Your task to perform on an android device: turn off improve location accuracy Image 0: 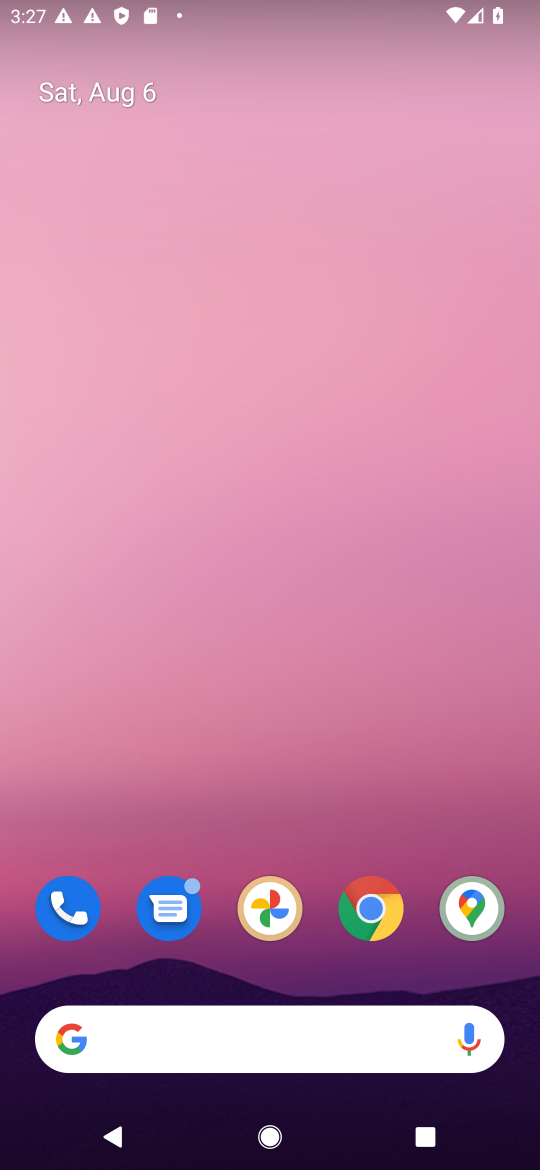
Step 0: drag from (275, 914) to (320, 247)
Your task to perform on an android device: turn off improve location accuracy Image 1: 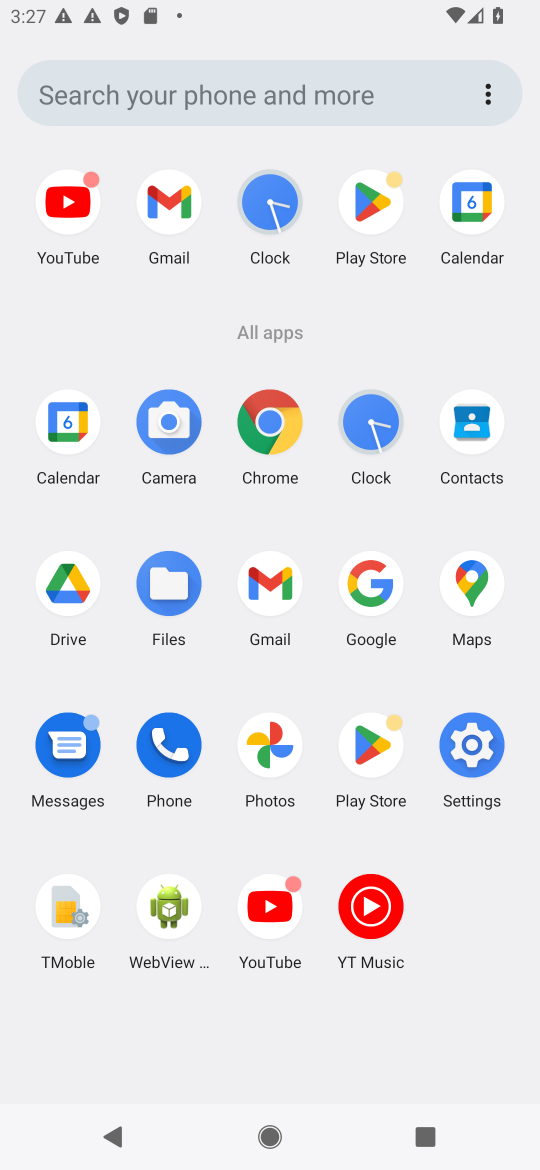
Step 1: click (482, 774)
Your task to perform on an android device: turn off improve location accuracy Image 2: 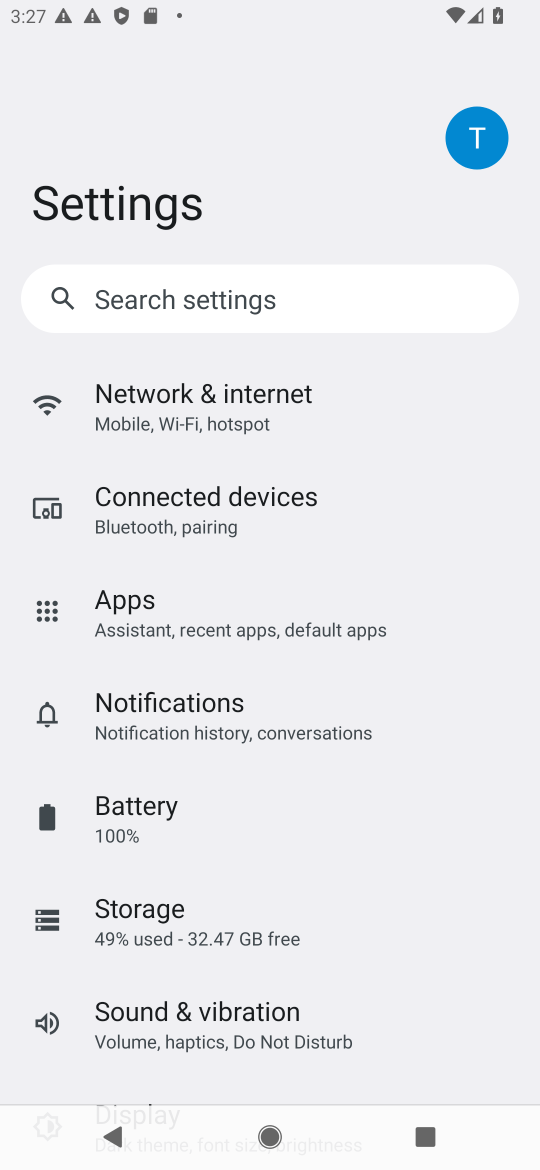
Step 2: drag from (193, 952) to (216, 784)
Your task to perform on an android device: turn off improve location accuracy Image 3: 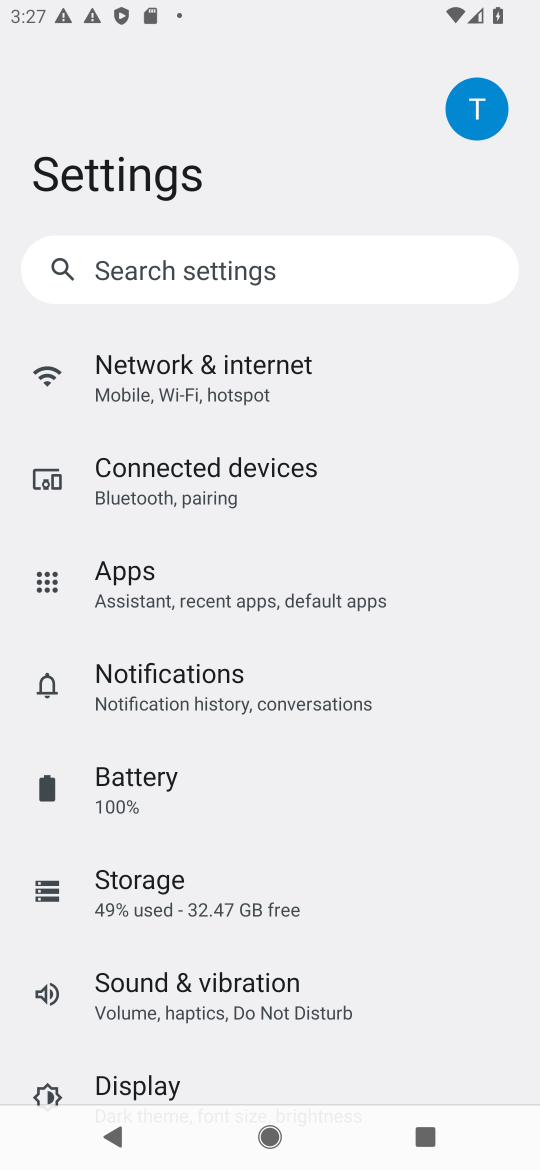
Step 3: drag from (249, 878) to (263, 574)
Your task to perform on an android device: turn off improve location accuracy Image 4: 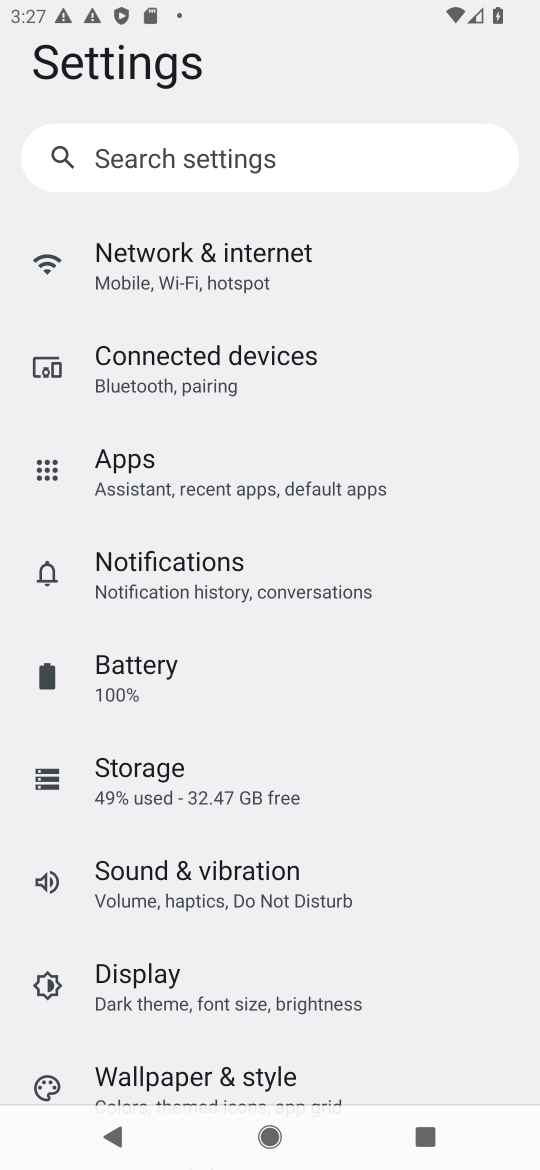
Step 4: drag from (184, 953) to (224, 478)
Your task to perform on an android device: turn off improve location accuracy Image 5: 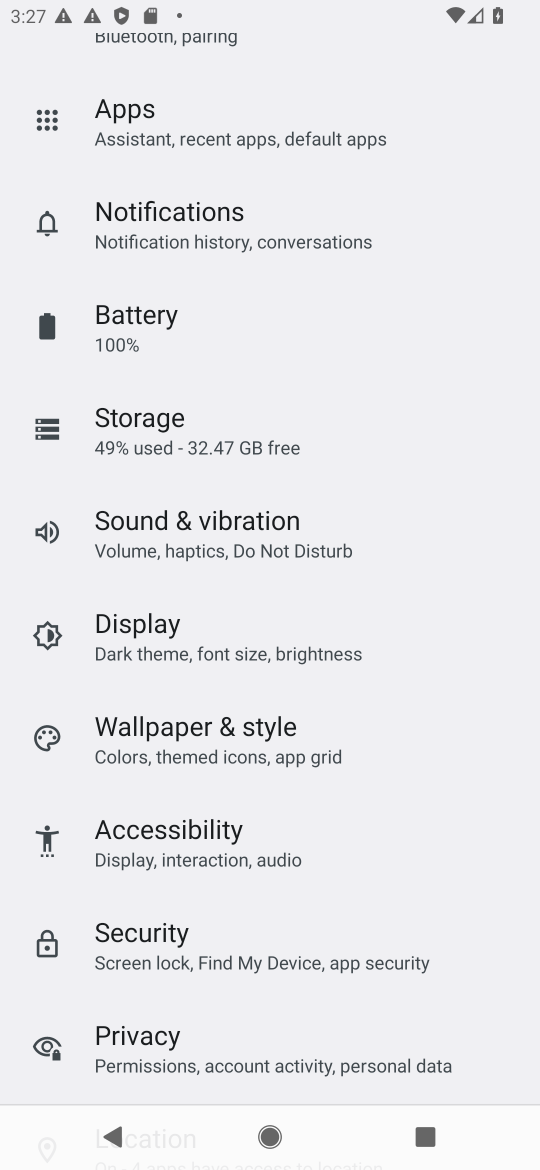
Step 5: drag from (198, 1052) to (209, 726)
Your task to perform on an android device: turn off improve location accuracy Image 6: 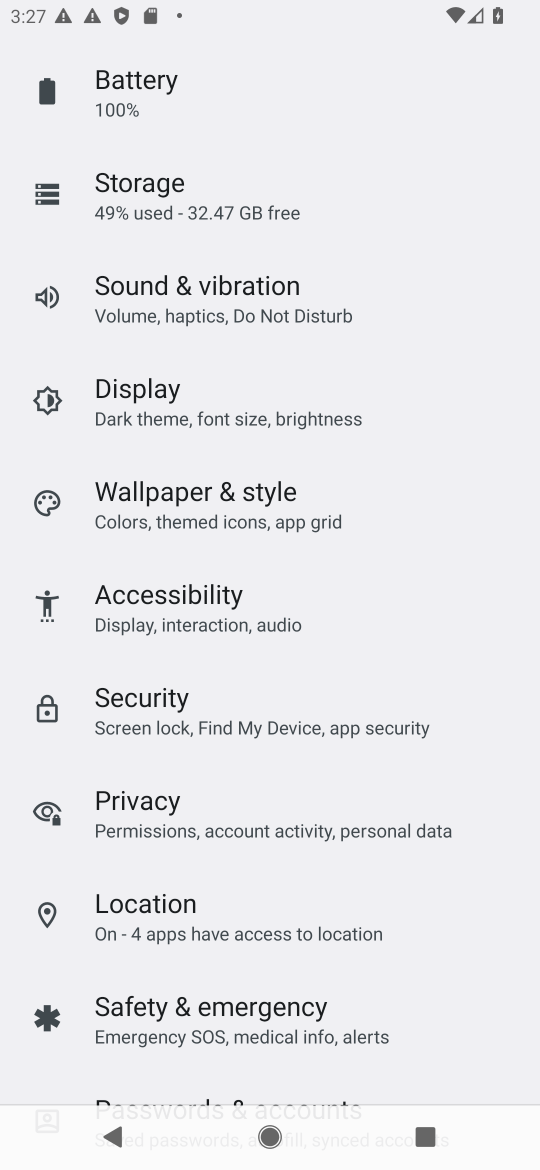
Step 6: click (164, 913)
Your task to perform on an android device: turn off improve location accuracy Image 7: 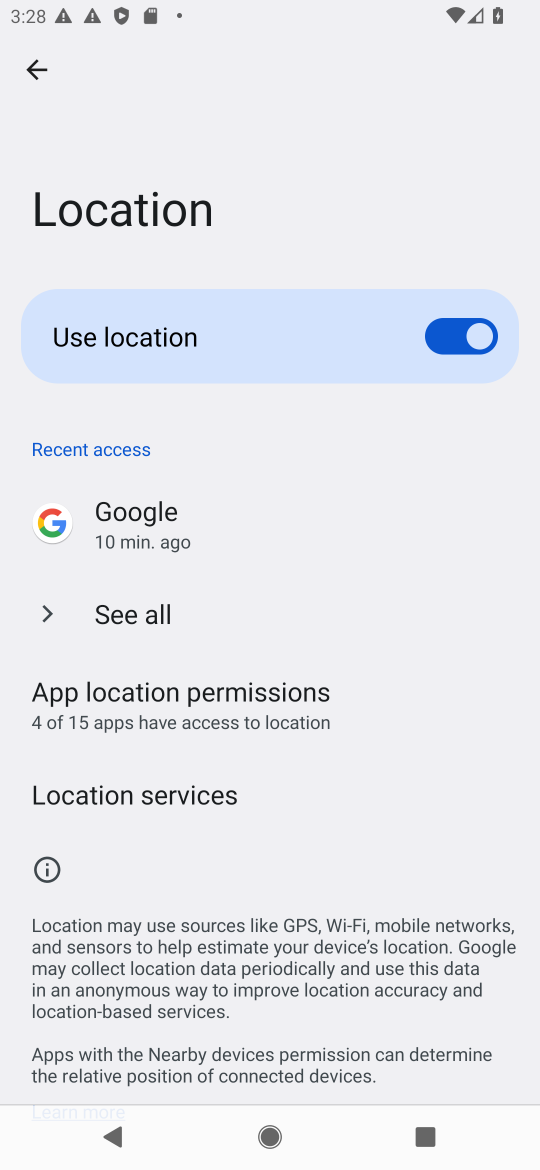
Step 7: click (161, 804)
Your task to perform on an android device: turn off improve location accuracy Image 8: 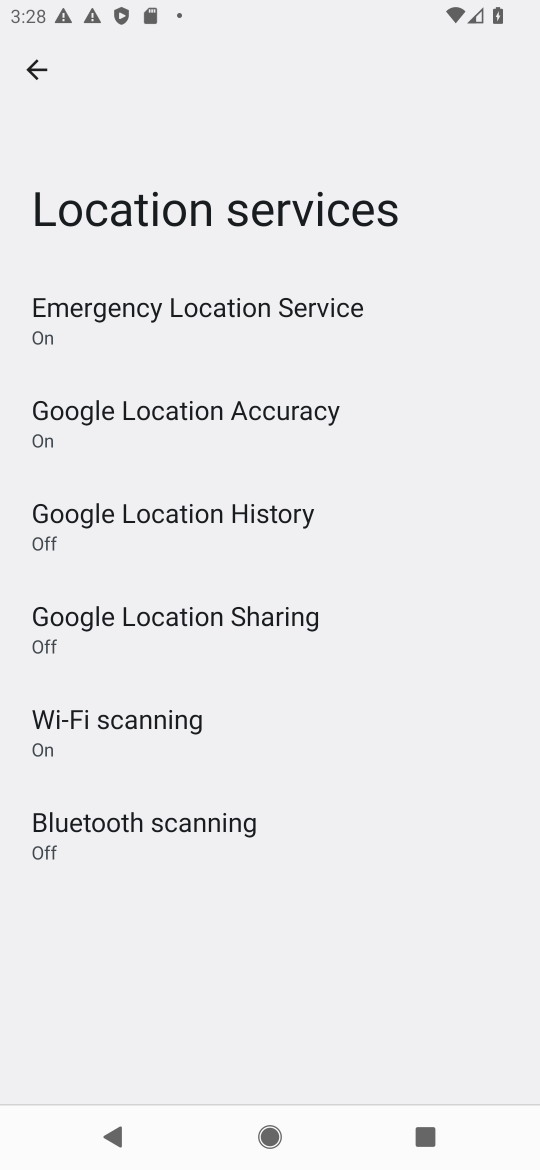
Step 8: click (280, 409)
Your task to perform on an android device: turn off improve location accuracy Image 9: 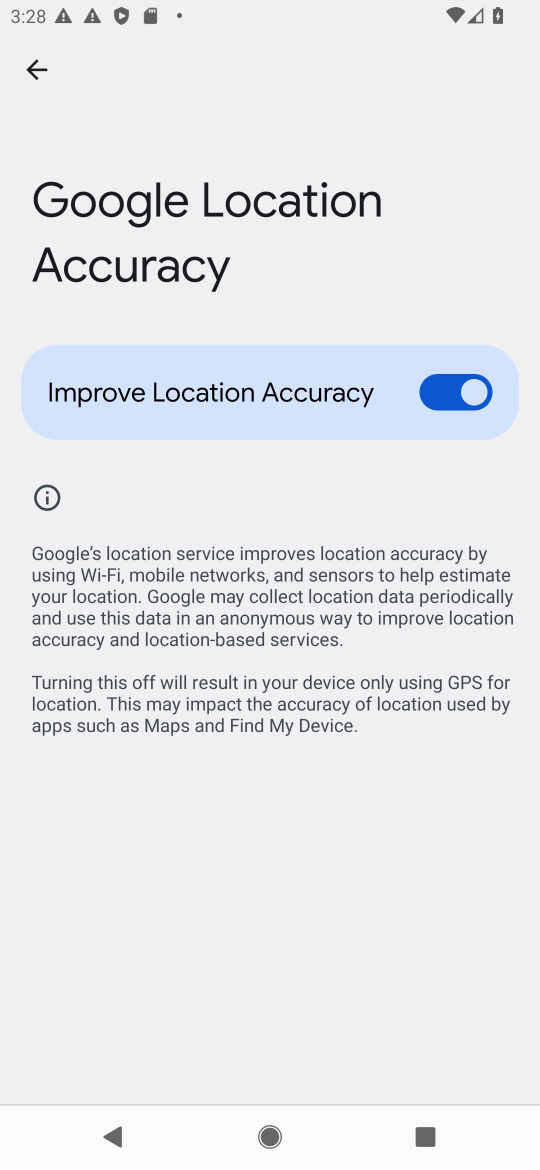
Step 9: click (414, 402)
Your task to perform on an android device: turn off improve location accuracy Image 10: 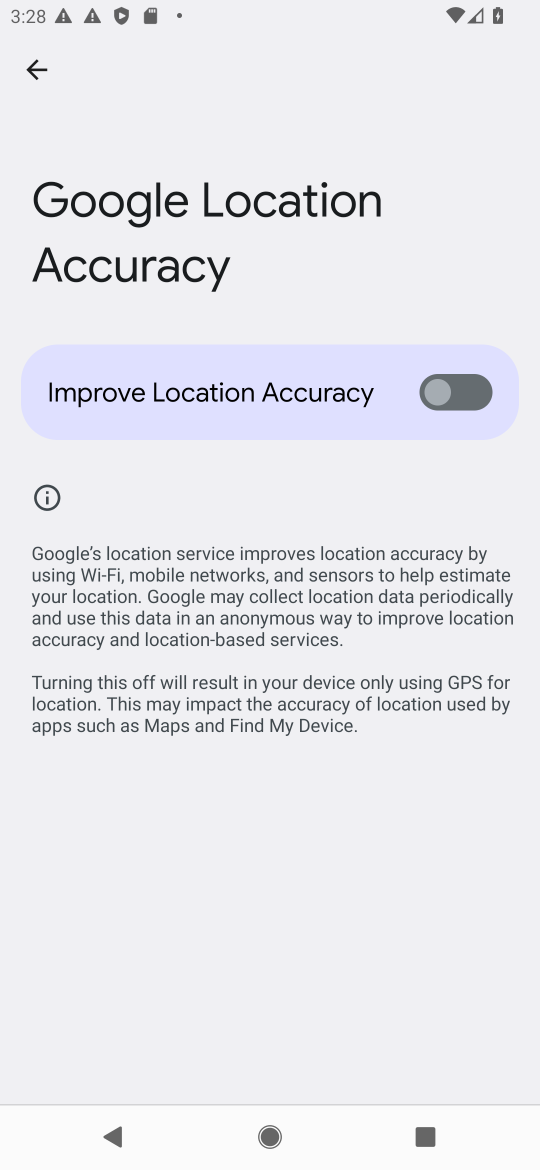
Step 10: task complete